Your task to perform on an android device: Open Youtube and go to "Your channel" Image 0: 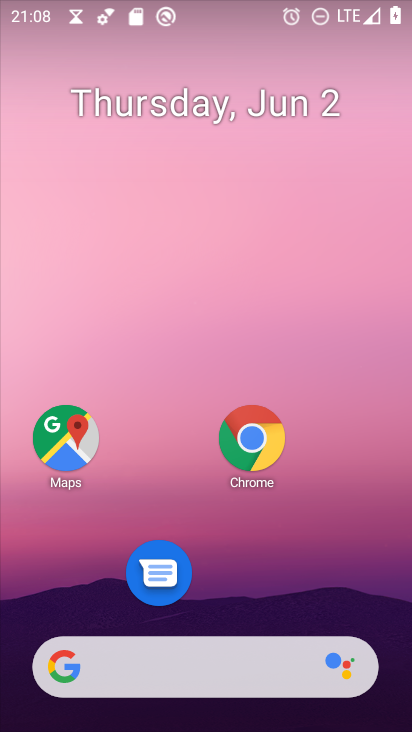
Step 0: press home button
Your task to perform on an android device: Open Youtube and go to "Your channel" Image 1: 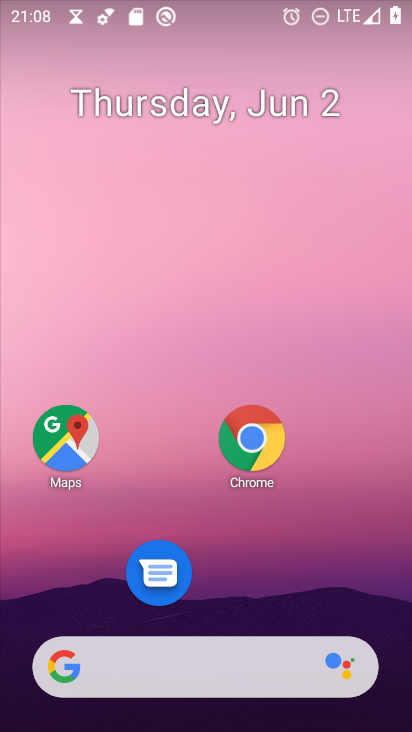
Step 1: drag from (143, 663) to (326, 221)
Your task to perform on an android device: Open Youtube and go to "Your channel" Image 2: 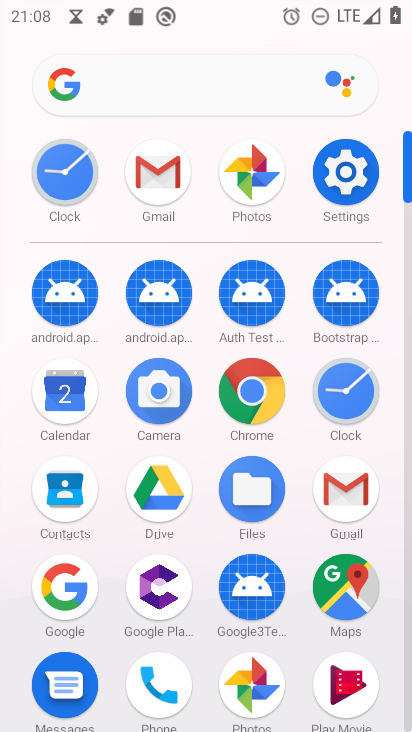
Step 2: drag from (199, 670) to (287, 335)
Your task to perform on an android device: Open Youtube and go to "Your channel" Image 3: 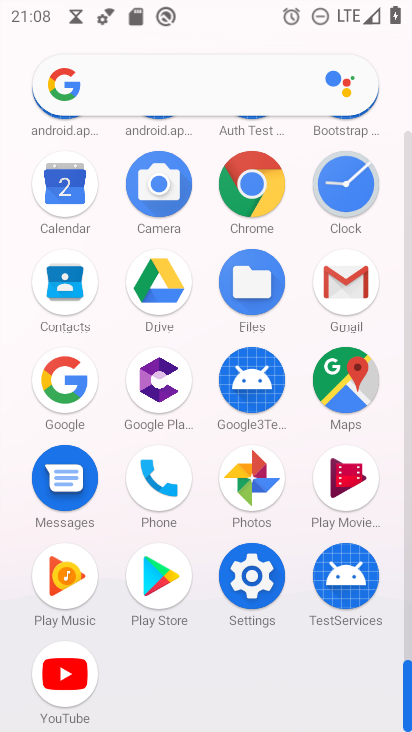
Step 3: click (71, 678)
Your task to perform on an android device: Open Youtube and go to "Your channel" Image 4: 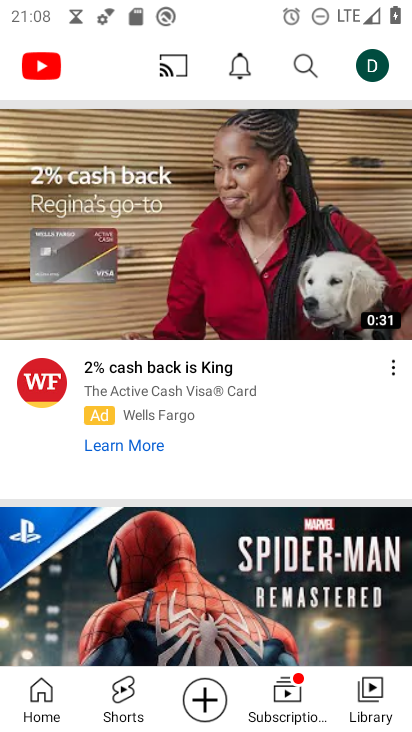
Step 4: click (379, 63)
Your task to perform on an android device: Open Youtube and go to "Your channel" Image 5: 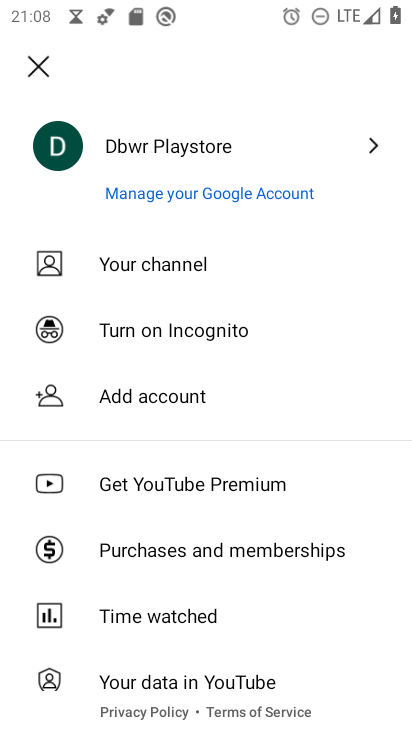
Step 5: click (194, 266)
Your task to perform on an android device: Open Youtube and go to "Your channel" Image 6: 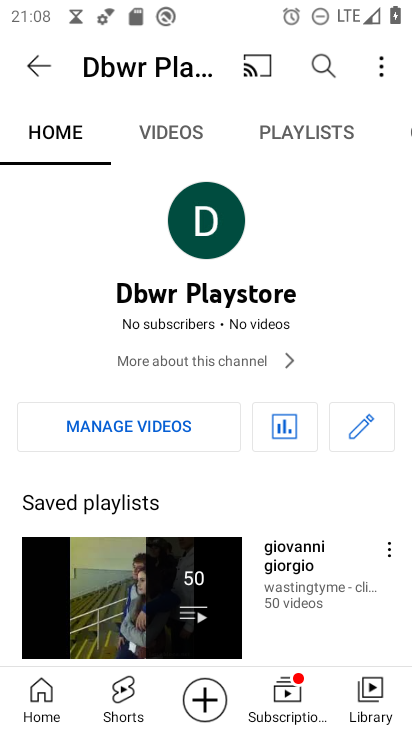
Step 6: task complete